Your task to perform on an android device: Open Google Maps Image 0: 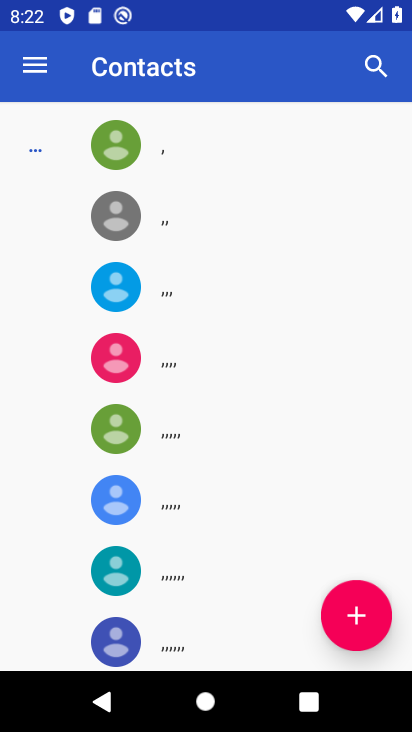
Step 0: press home button
Your task to perform on an android device: Open Google Maps Image 1: 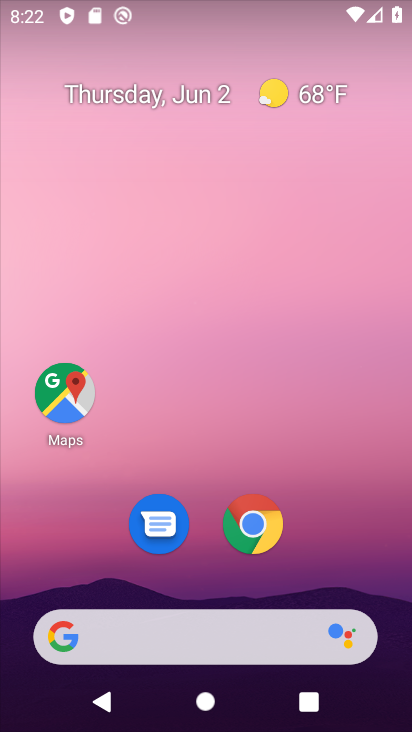
Step 1: click (60, 390)
Your task to perform on an android device: Open Google Maps Image 2: 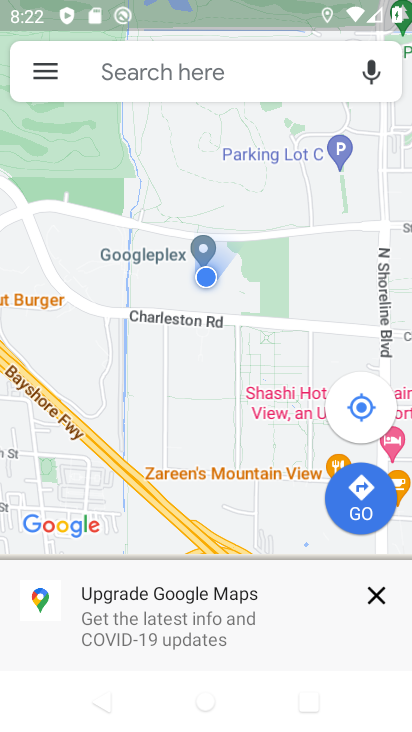
Step 2: task complete